Your task to perform on an android device: What is the recent news? Image 0: 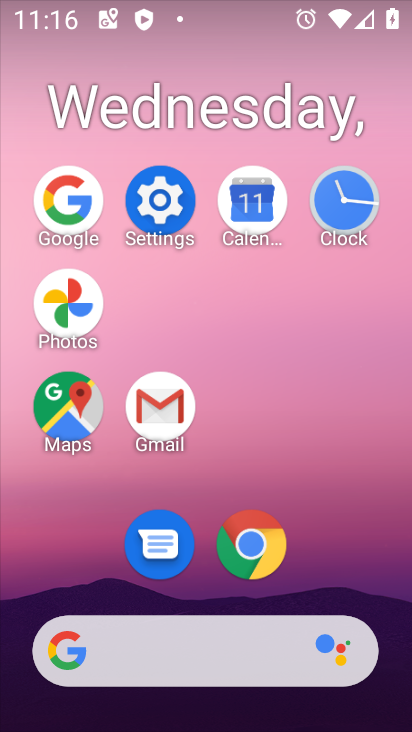
Step 0: click (67, 202)
Your task to perform on an android device: What is the recent news? Image 1: 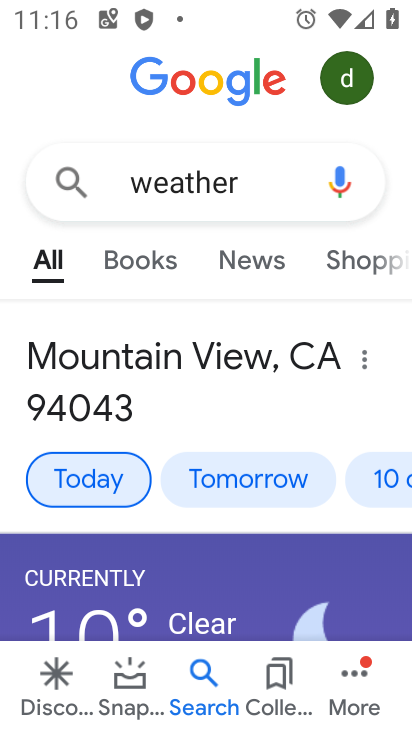
Step 1: click (269, 203)
Your task to perform on an android device: What is the recent news? Image 2: 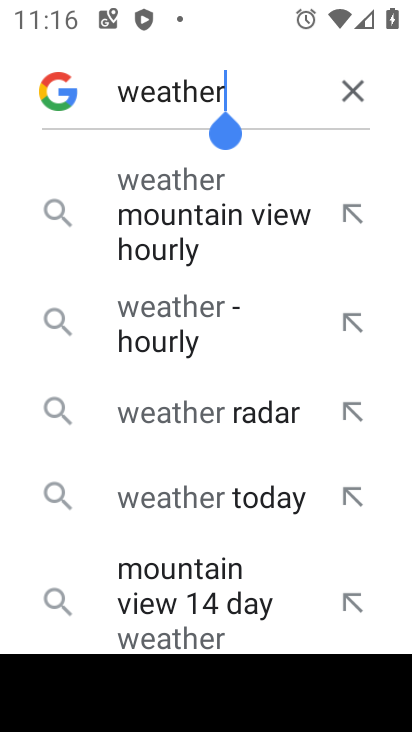
Step 2: click (343, 95)
Your task to perform on an android device: What is the recent news? Image 3: 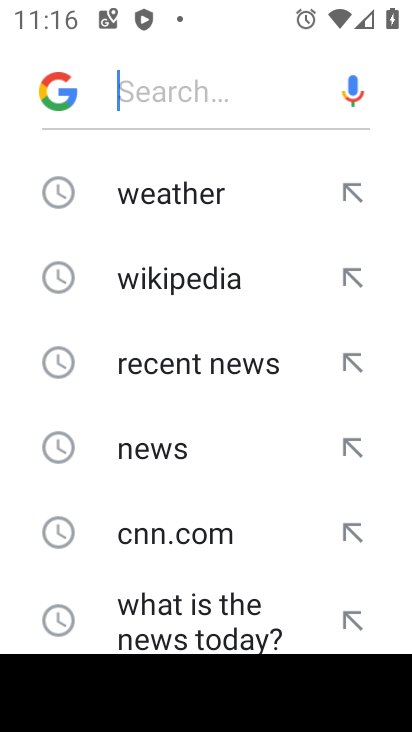
Step 3: click (213, 358)
Your task to perform on an android device: What is the recent news? Image 4: 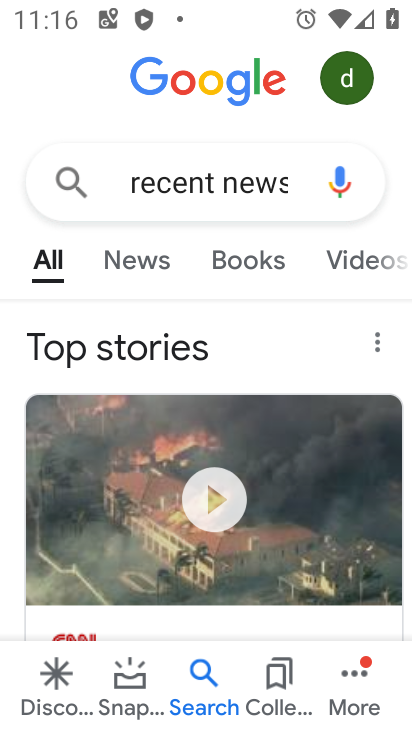
Step 4: task complete